Your task to perform on an android device: set the timer Image 0: 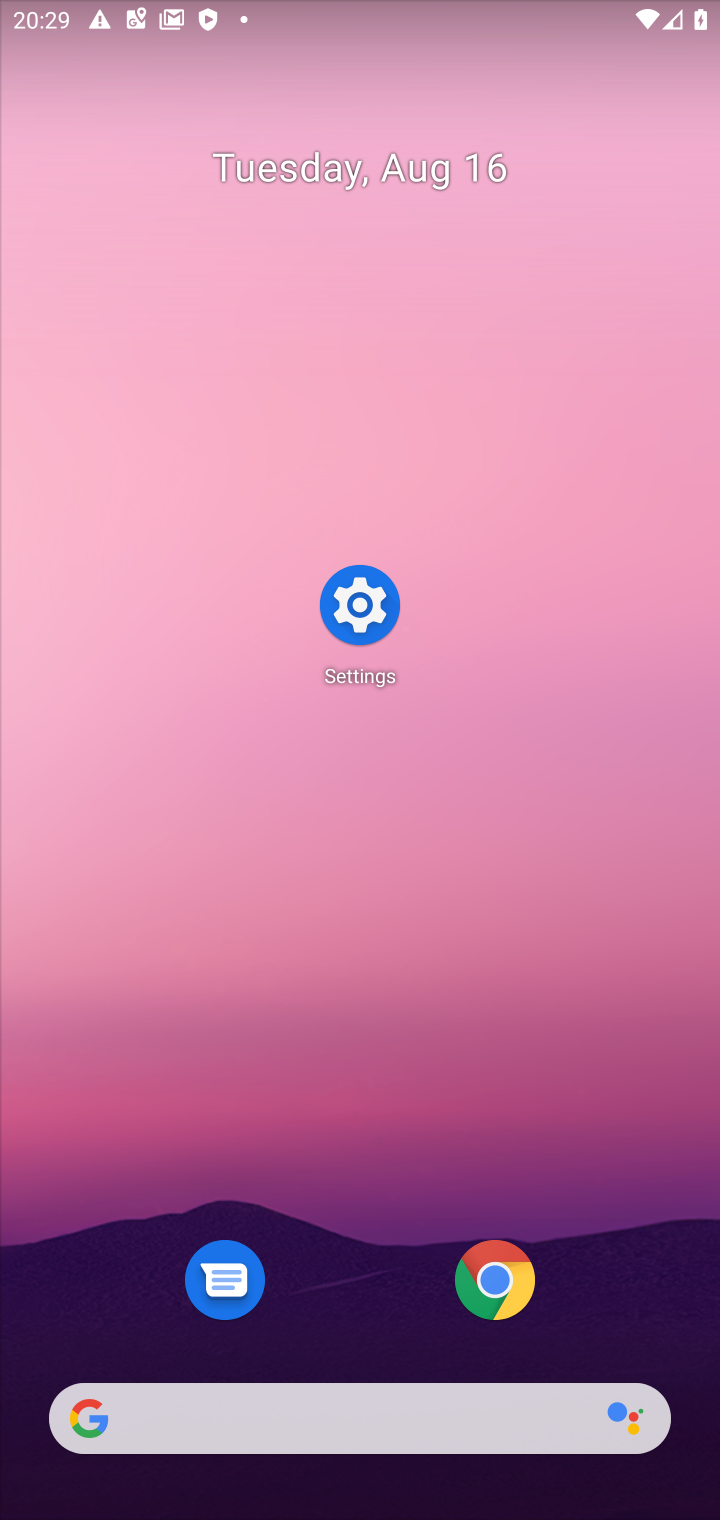
Step 0: drag from (321, 1340) to (413, 475)
Your task to perform on an android device: set the timer Image 1: 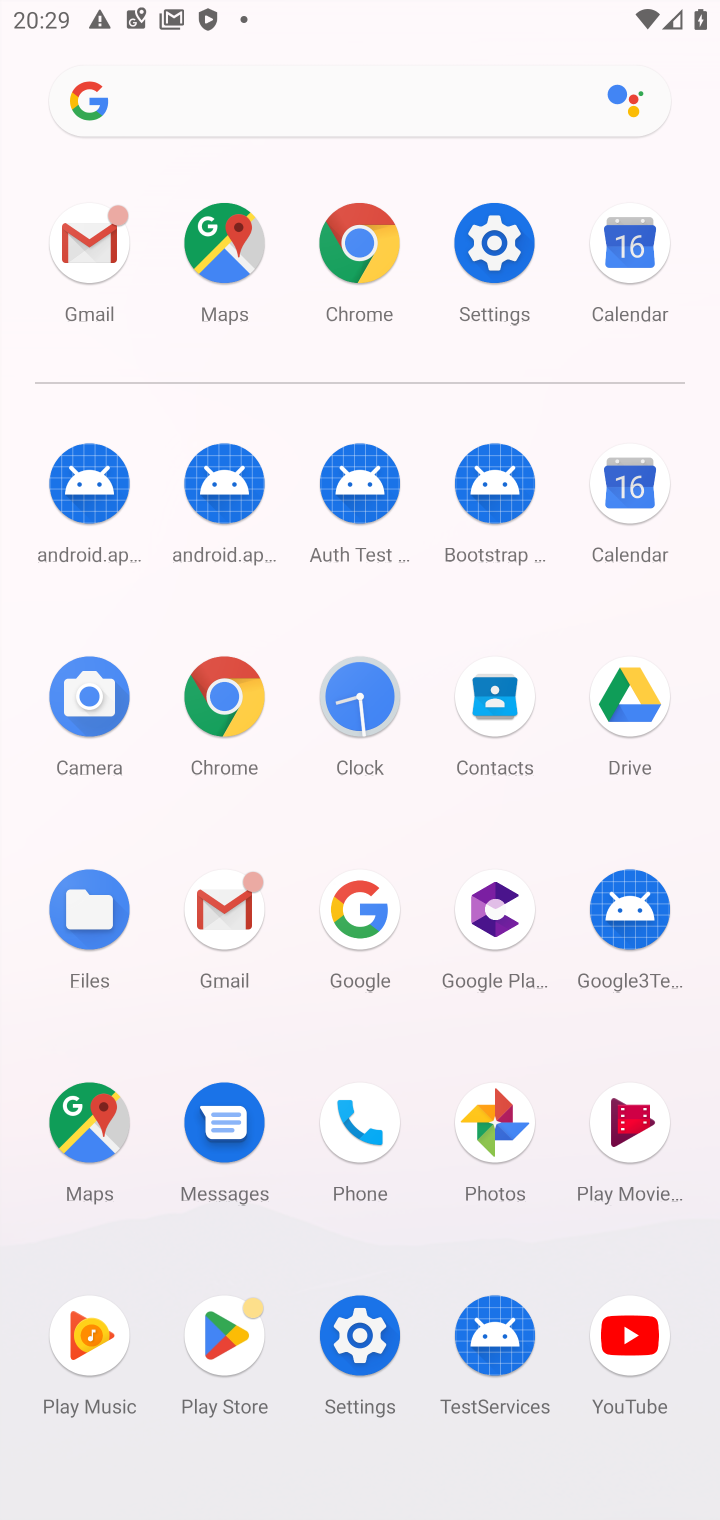
Step 1: click (356, 707)
Your task to perform on an android device: set the timer Image 2: 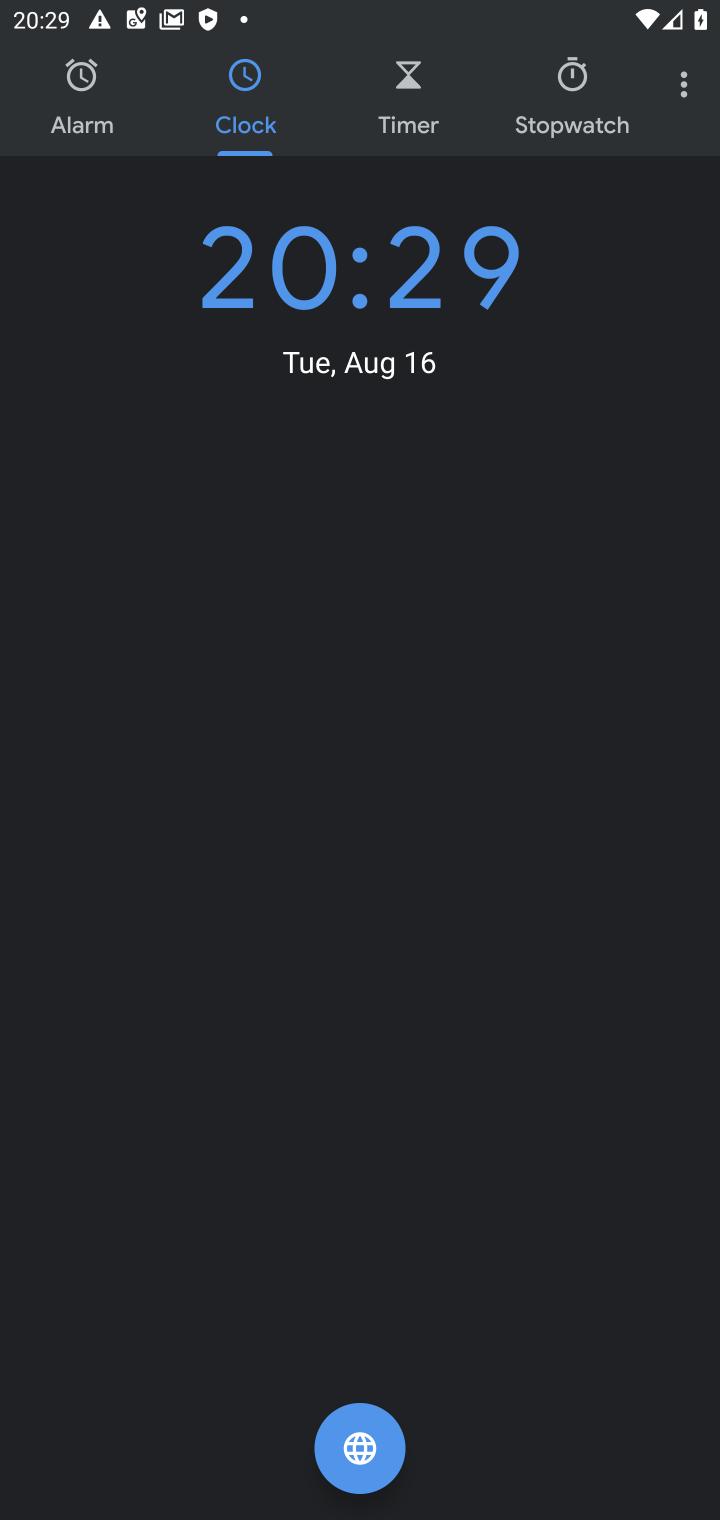
Step 2: click (403, 78)
Your task to perform on an android device: set the timer Image 3: 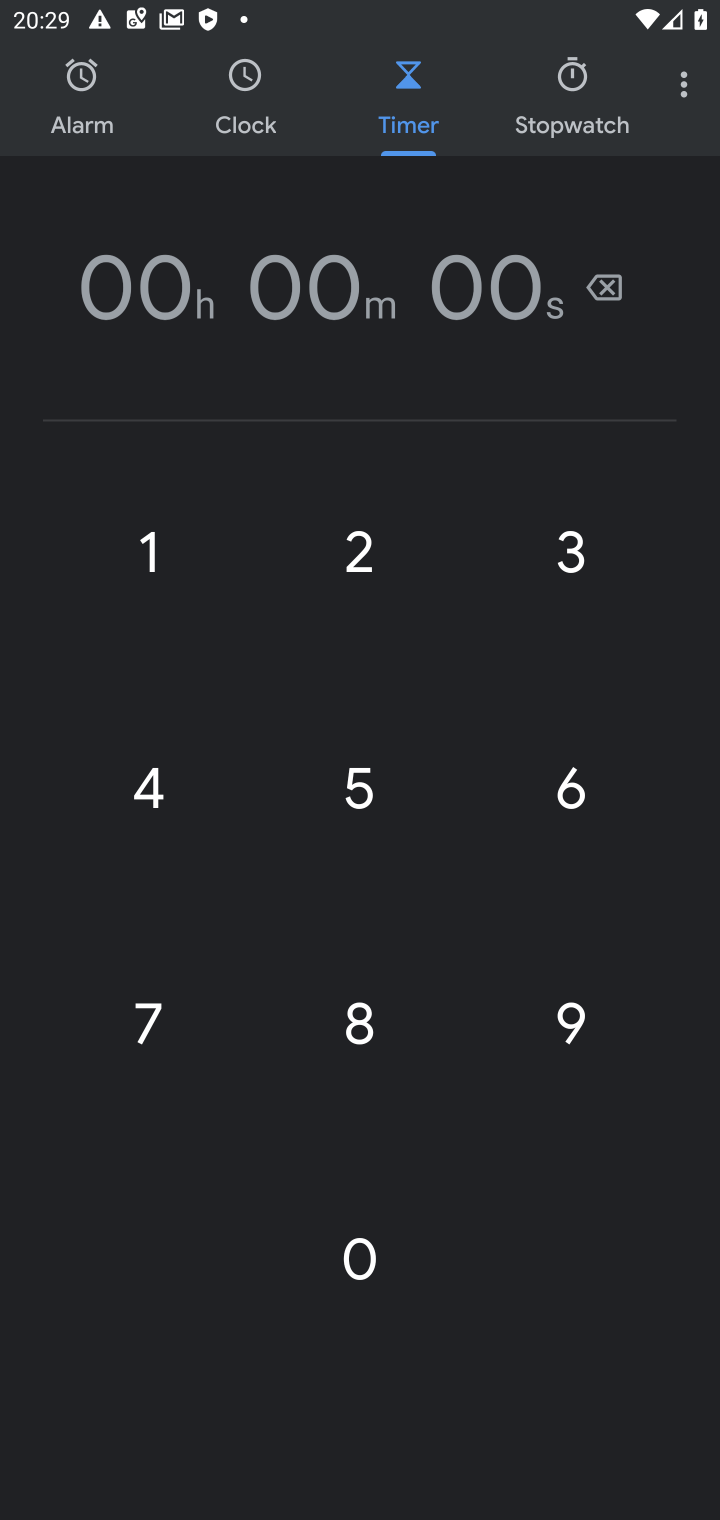
Step 3: click (361, 1023)
Your task to perform on an android device: set the timer Image 4: 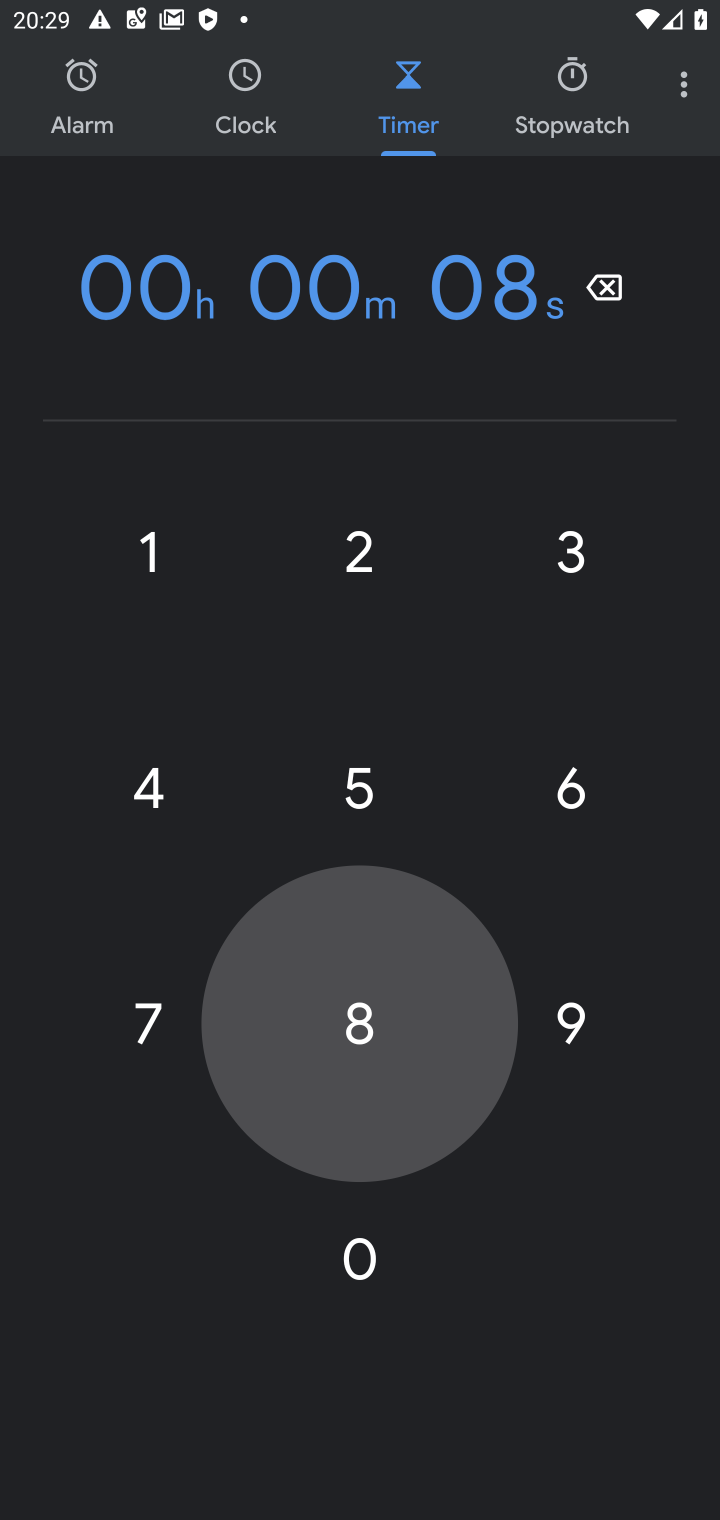
Step 4: click (140, 786)
Your task to perform on an android device: set the timer Image 5: 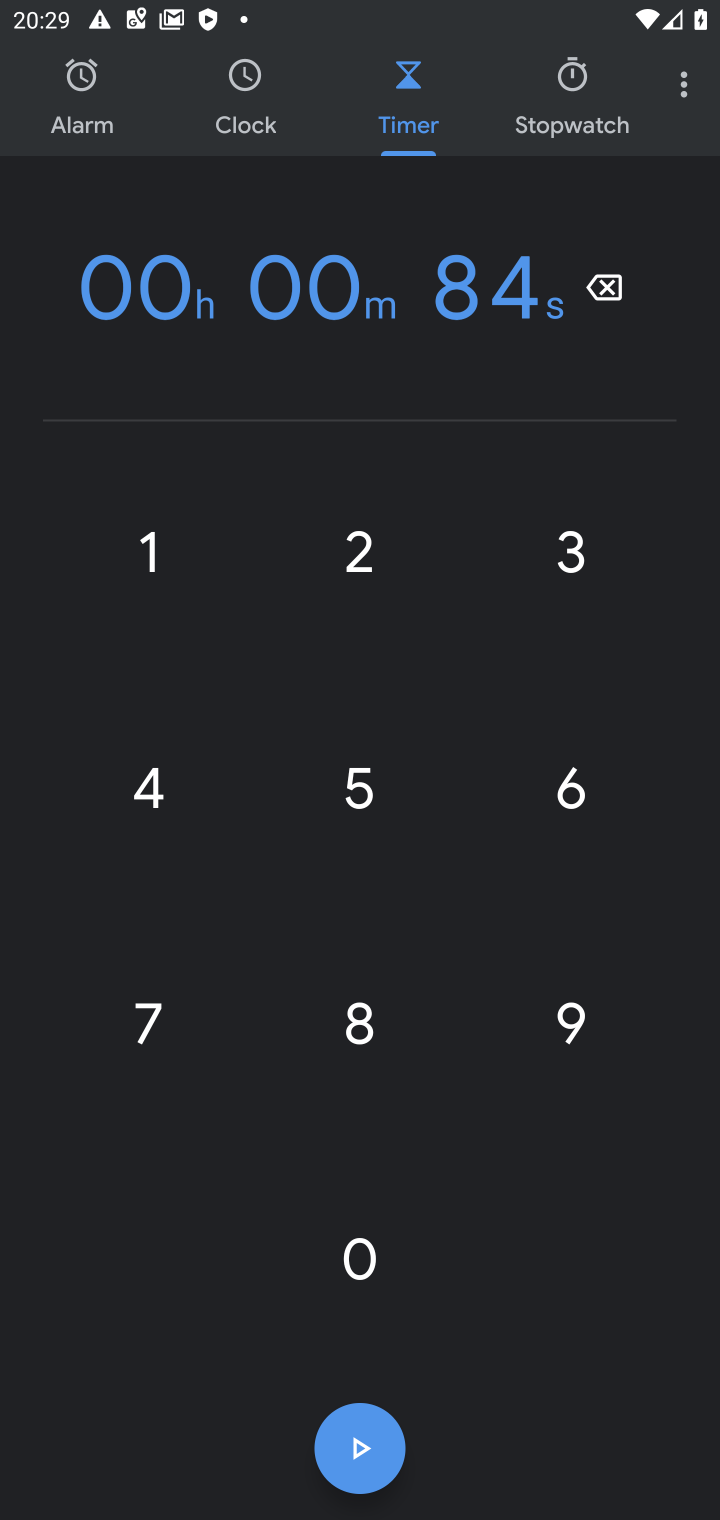
Step 5: click (604, 1043)
Your task to perform on an android device: set the timer Image 6: 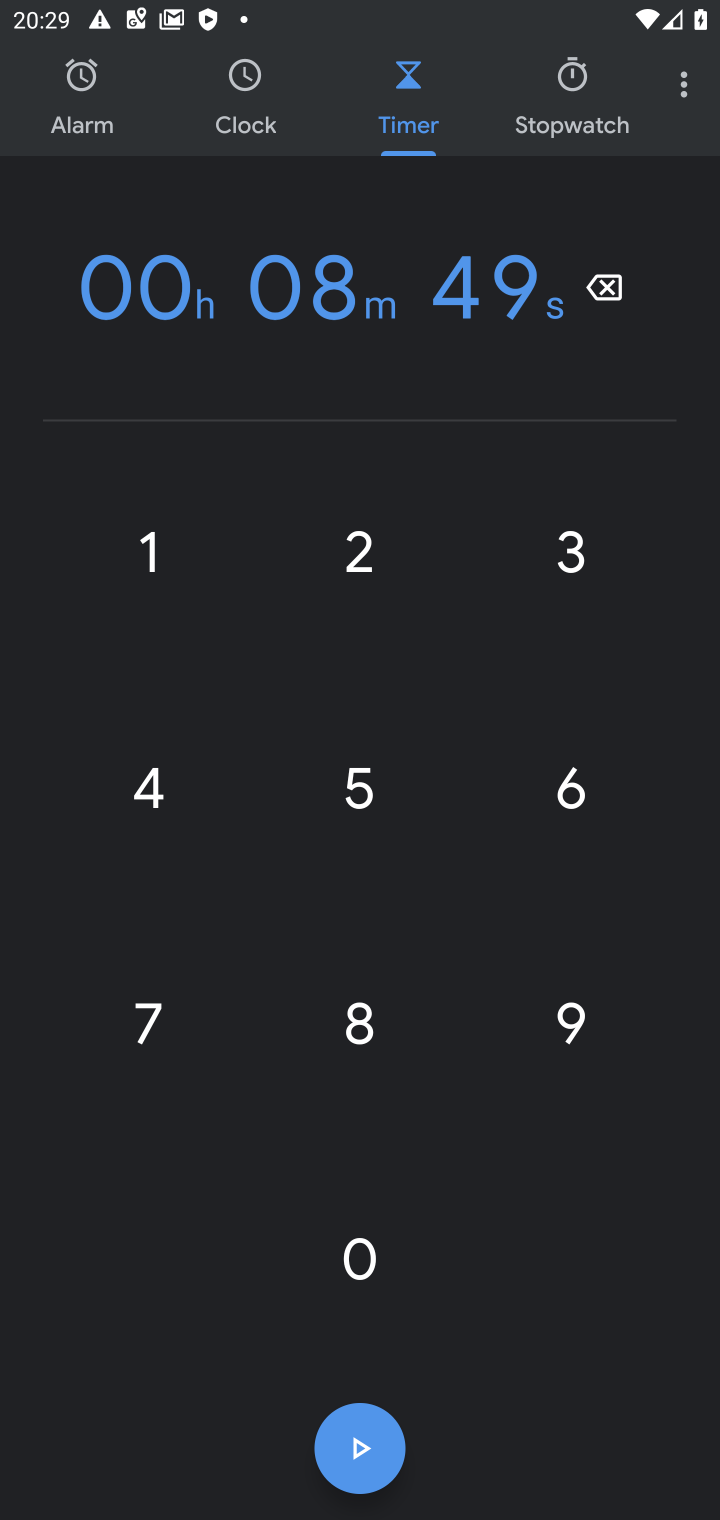
Step 6: click (411, 1452)
Your task to perform on an android device: set the timer Image 7: 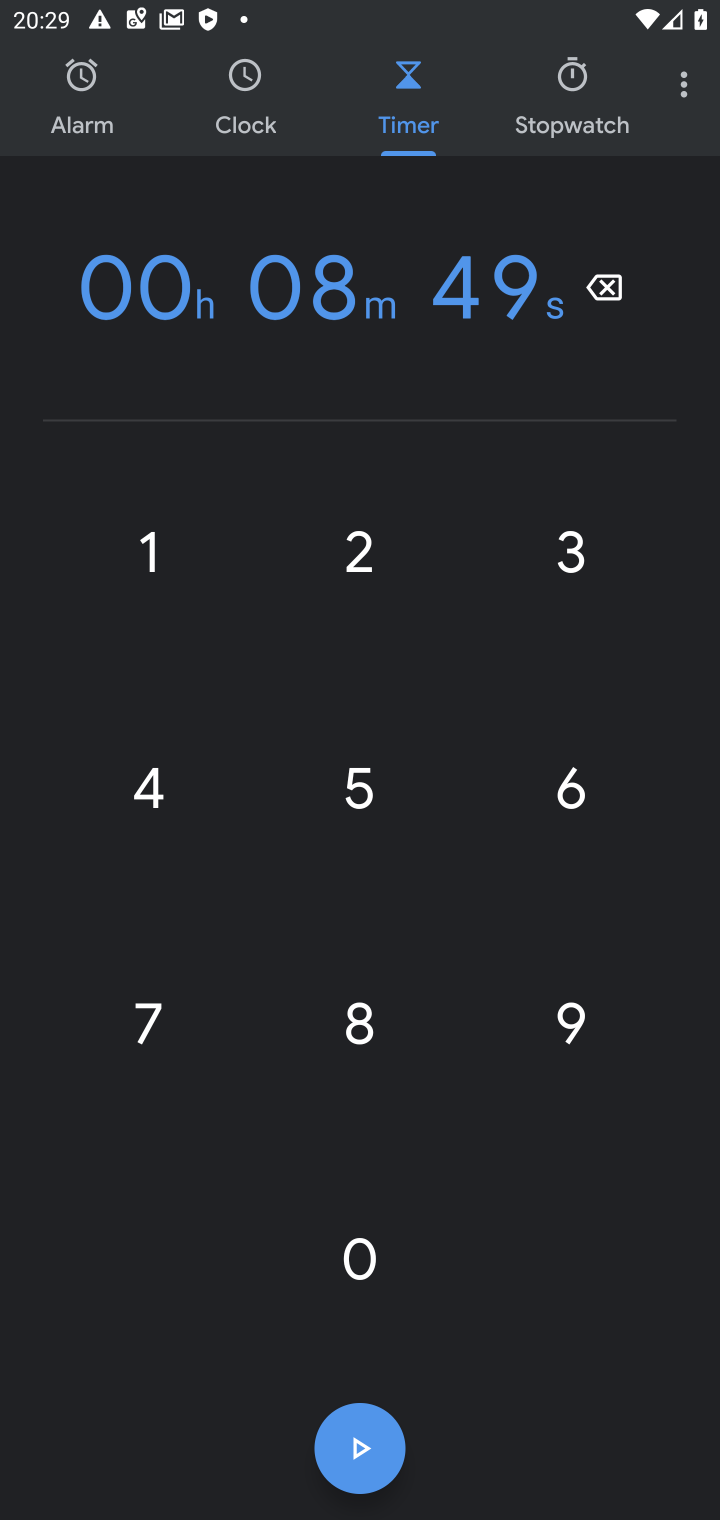
Step 7: click (364, 1431)
Your task to perform on an android device: set the timer Image 8: 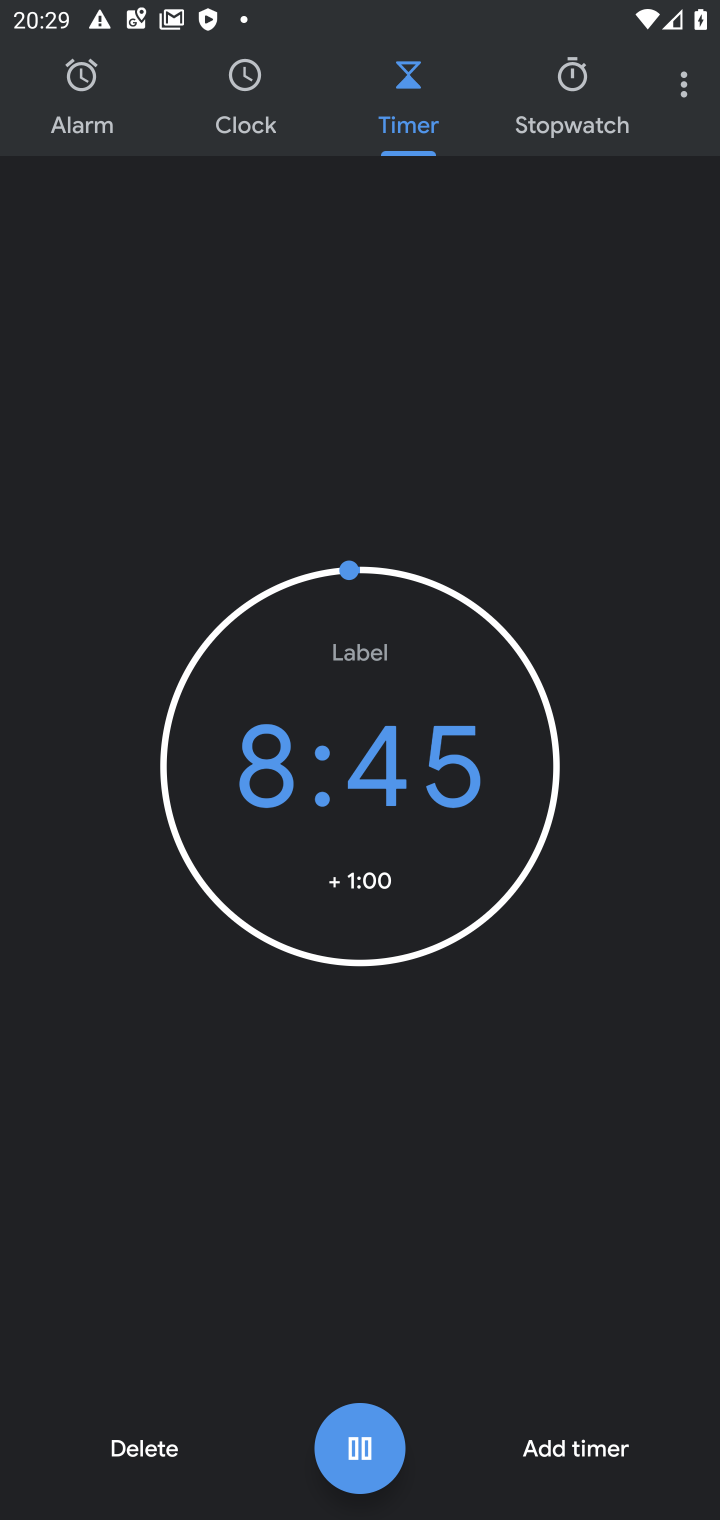
Step 8: task complete